Your task to perform on an android device: turn off location history Image 0: 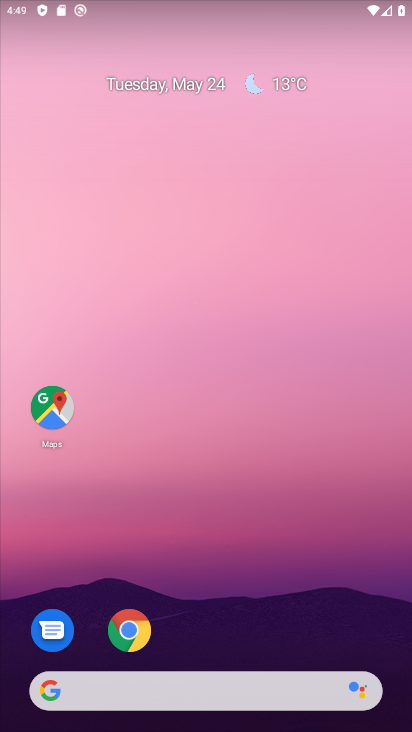
Step 0: drag from (212, 630) to (158, 12)
Your task to perform on an android device: turn off location history Image 1: 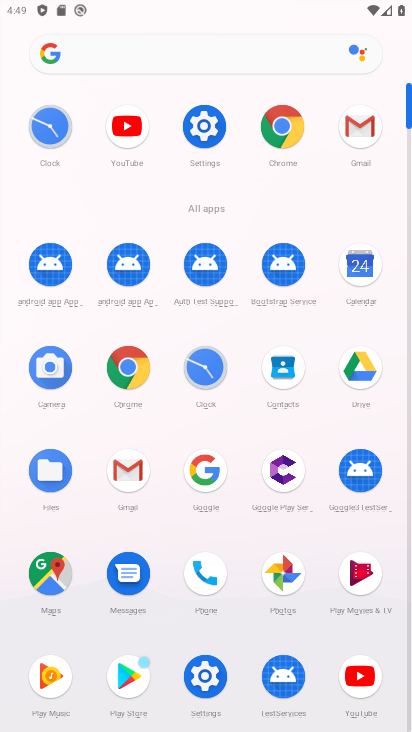
Step 1: click (204, 687)
Your task to perform on an android device: turn off location history Image 2: 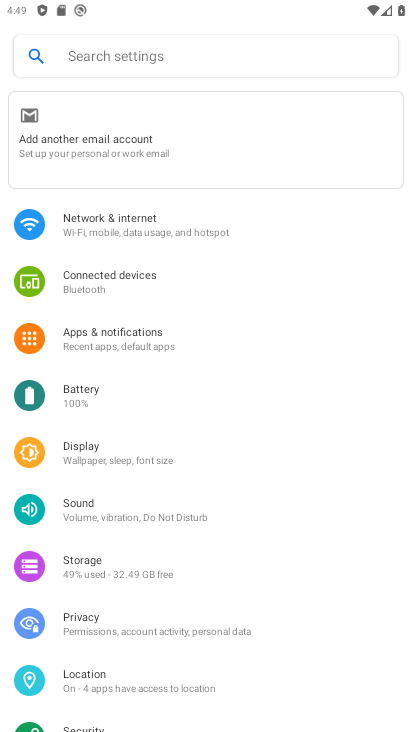
Step 2: click (103, 688)
Your task to perform on an android device: turn off location history Image 3: 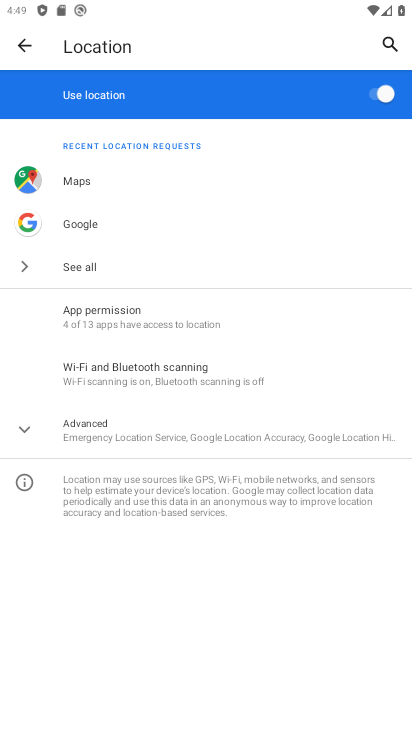
Step 3: click (97, 428)
Your task to perform on an android device: turn off location history Image 4: 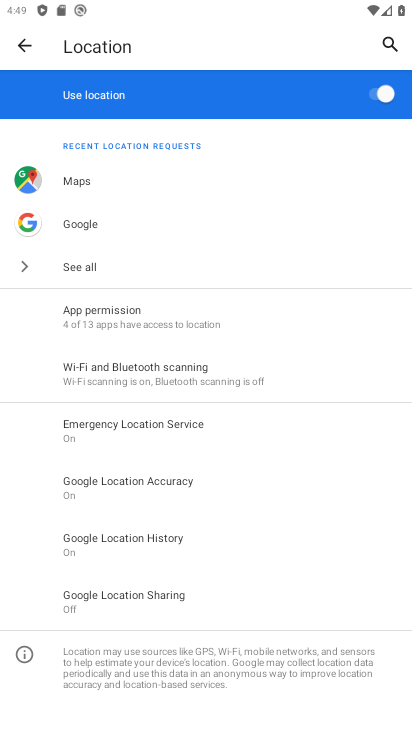
Step 4: click (118, 541)
Your task to perform on an android device: turn off location history Image 5: 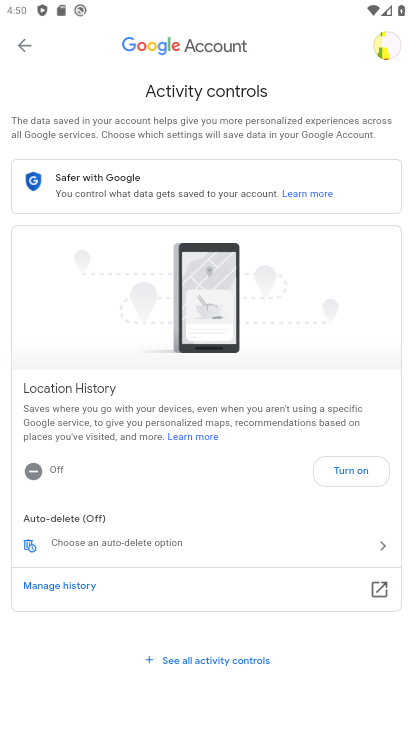
Step 5: click (335, 482)
Your task to perform on an android device: turn off location history Image 6: 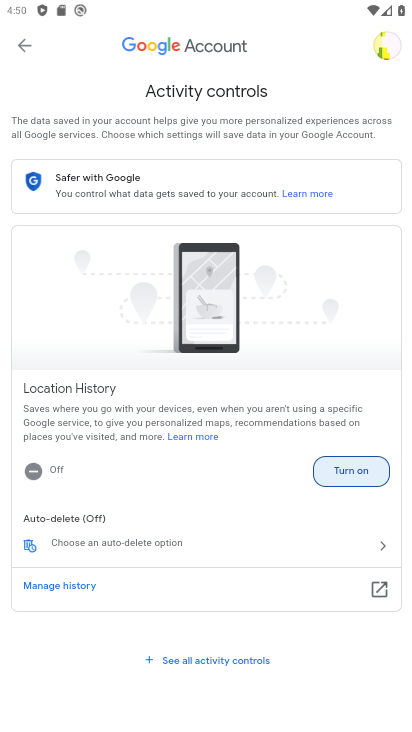
Step 6: task complete